Your task to perform on an android device: What's on my calendar tomorrow? Image 0: 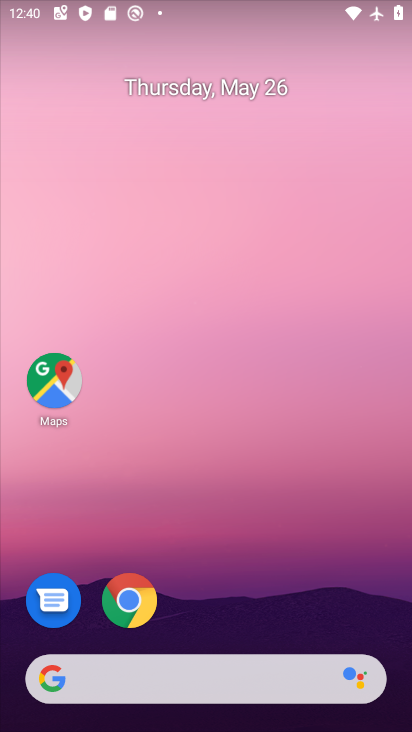
Step 0: drag from (253, 561) to (266, 158)
Your task to perform on an android device: What's on my calendar tomorrow? Image 1: 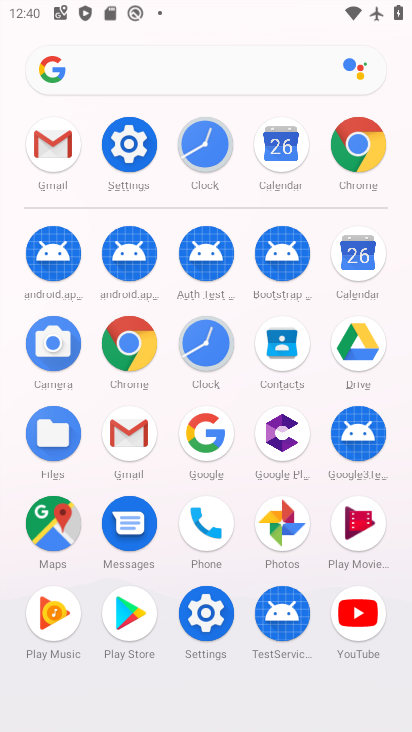
Step 1: click (285, 148)
Your task to perform on an android device: What's on my calendar tomorrow? Image 2: 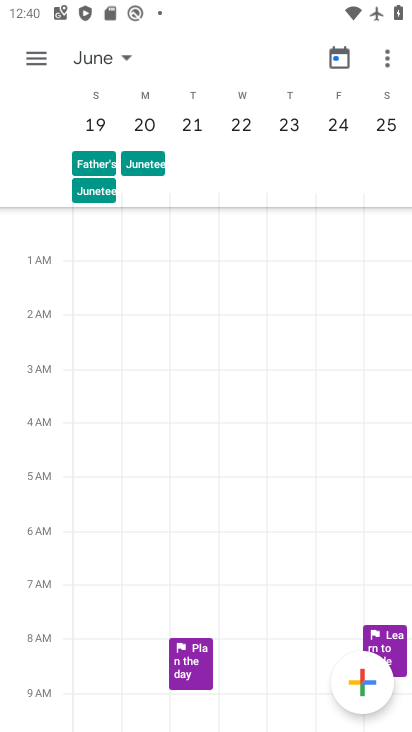
Step 2: click (95, 64)
Your task to perform on an android device: What's on my calendar tomorrow? Image 3: 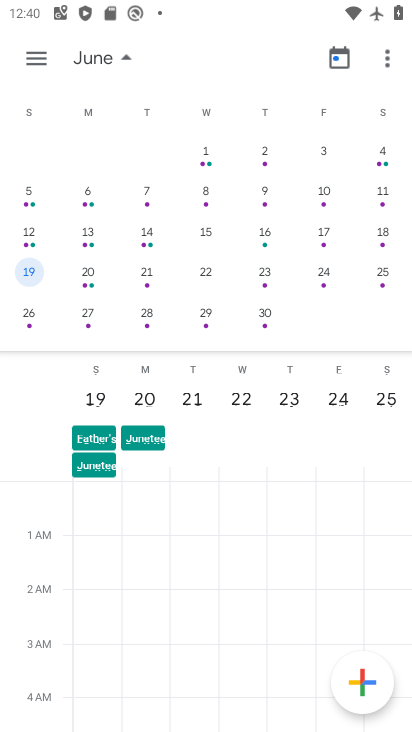
Step 3: drag from (34, 237) to (361, 214)
Your task to perform on an android device: What's on my calendar tomorrow? Image 4: 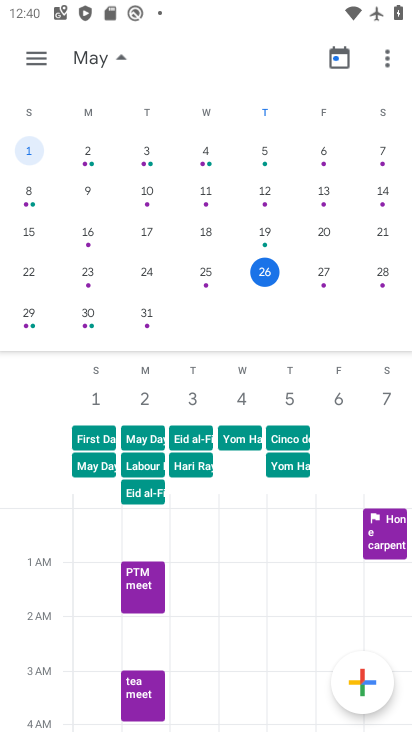
Step 4: click (312, 274)
Your task to perform on an android device: What's on my calendar tomorrow? Image 5: 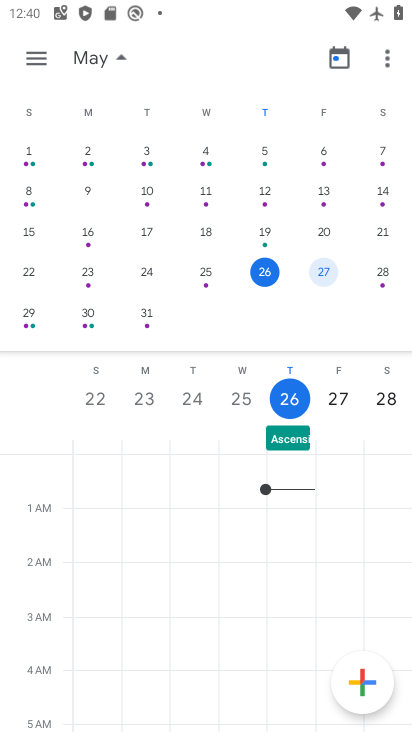
Step 5: task complete